Your task to perform on an android device: move an email to a new category in the gmail app Image 0: 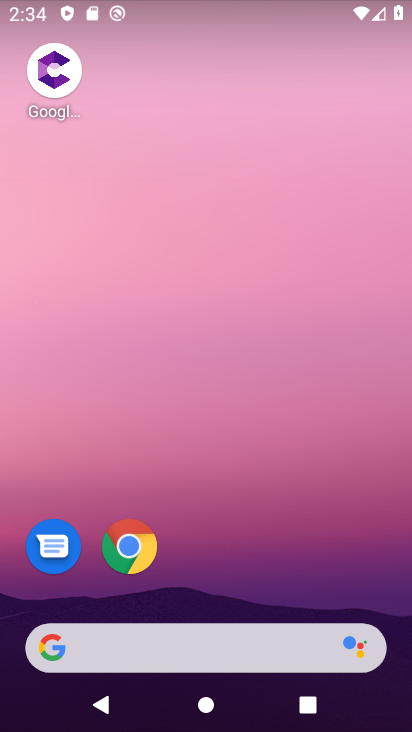
Step 0: drag from (240, 546) to (236, 42)
Your task to perform on an android device: move an email to a new category in the gmail app Image 1: 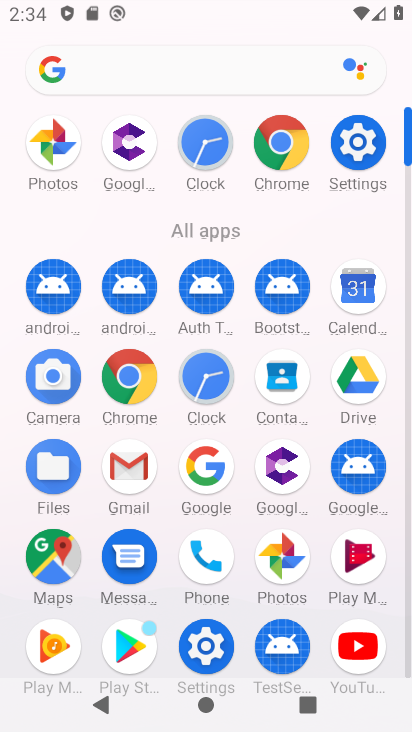
Step 1: click (139, 477)
Your task to perform on an android device: move an email to a new category in the gmail app Image 2: 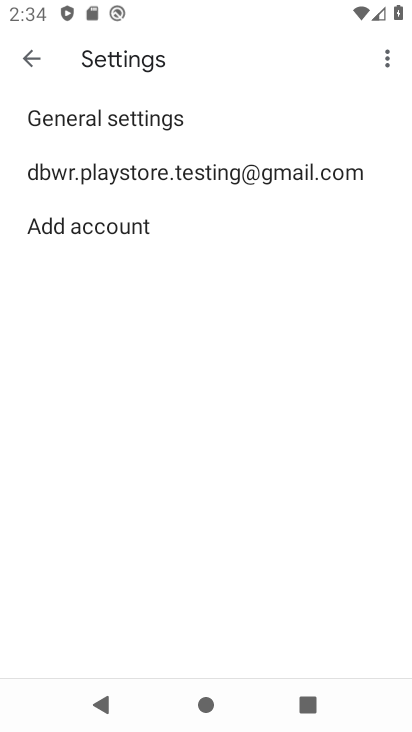
Step 2: click (34, 45)
Your task to perform on an android device: move an email to a new category in the gmail app Image 3: 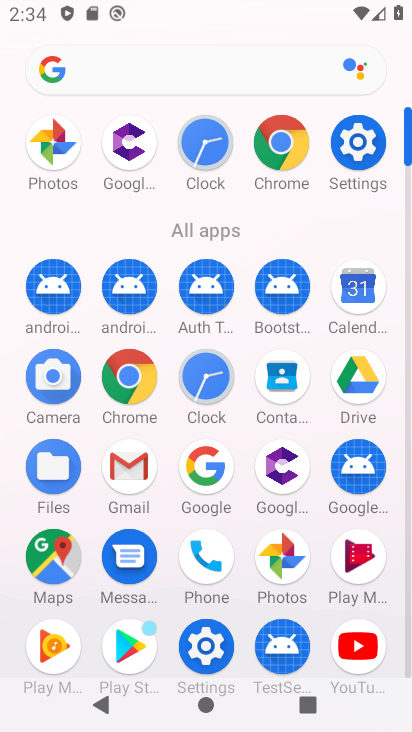
Step 3: click (141, 473)
Your task to perform on an android device: move an email to a new category in the gmail app Image 4: 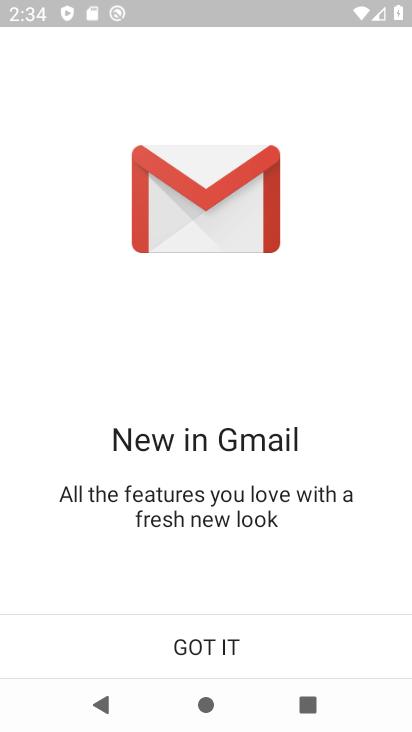
Step 4: click (183, 628)
Your task to perform on an android device: move an email to a new category in the gmail app Image 5: 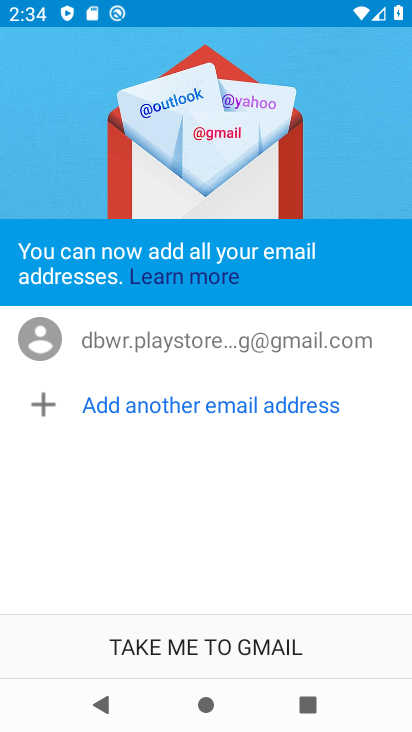
Step 5: click (195, 635)
Your task to perform on an android device: move an email to a new category in the gmail app Image 6: 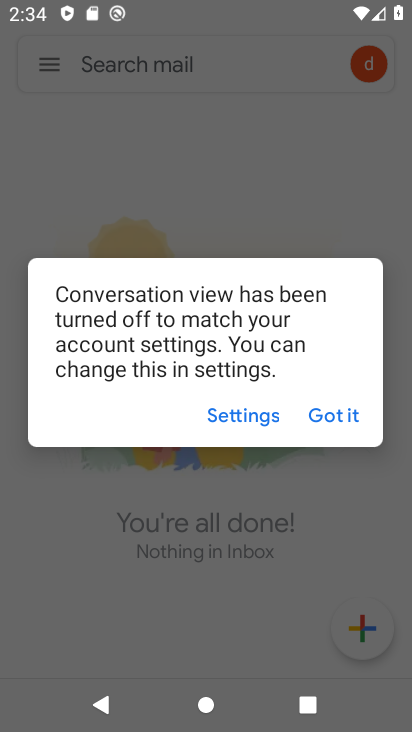
Step 6: click (354, 414)
Your task to perform on an android device: move an email to a new category in the gmail app Image 7: 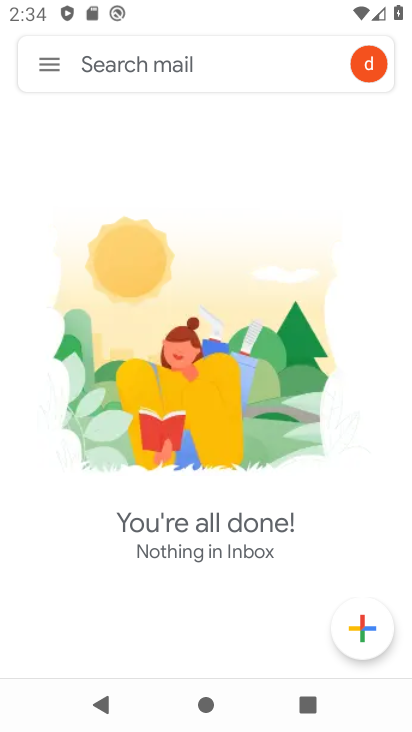
Step 7: click (49, 68)
Your task to perform on an android device: move an email to a new category in the gmail app Image 8: 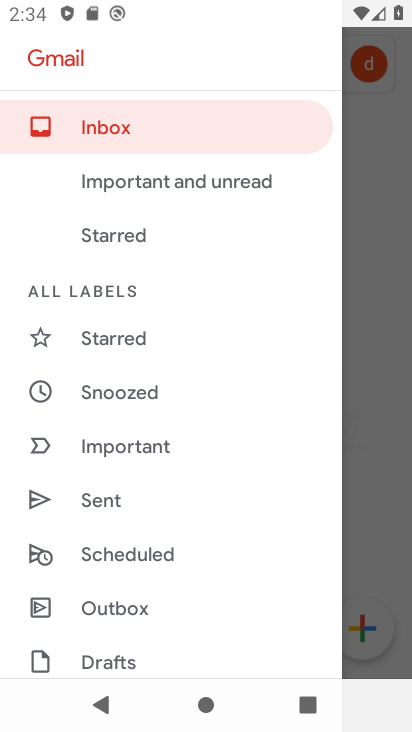
Step 8: drag from (153, 565) to (200, 252)
Your task to perform on an android device: move an email to a new category in the gmail app Image 9: 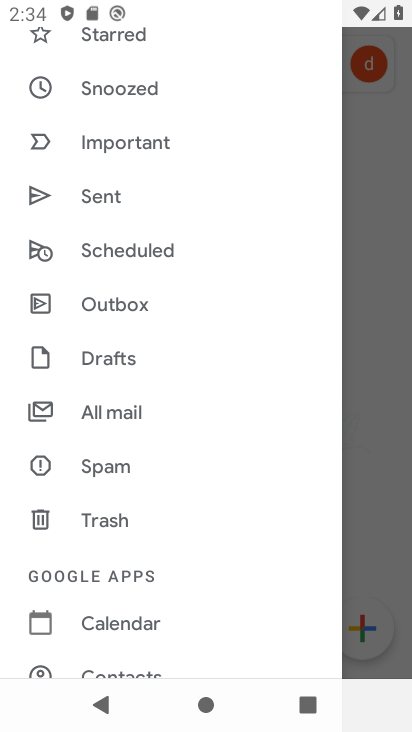
Step 9: click (160, 413)
Your task to perform on an android device: move an email to a new category in the gmail app Image 10: 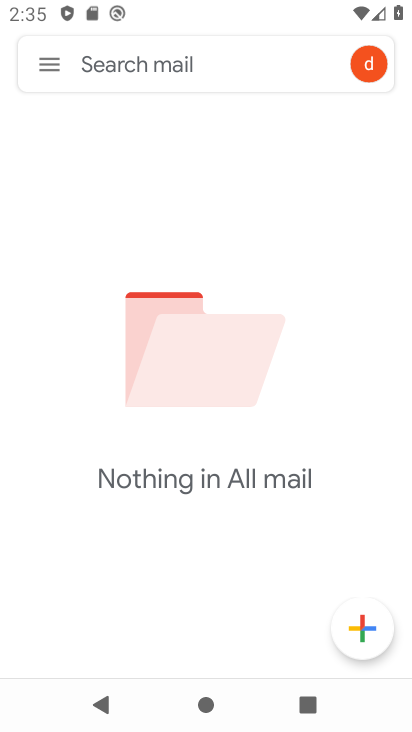
Step 10: task complete